Your task to perform on an android device: Show me popular games on the Play Store Image 0: 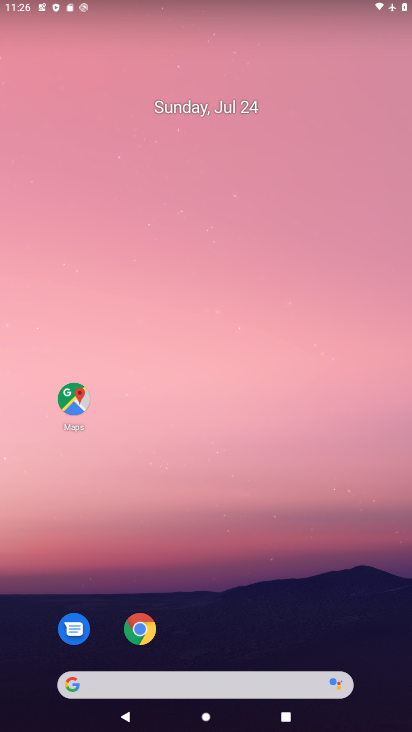
Step 0: drag from (203, 588) to (164, 5)
Your task to perform on an android device: Show me popular games on the Play Store Image 1: 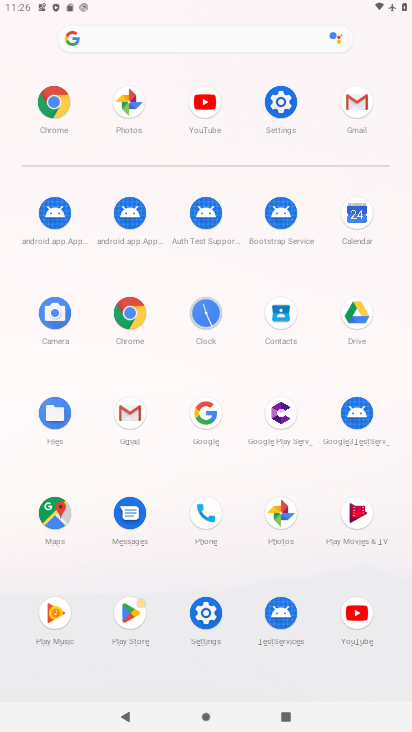
Step 1: click (141, 614)
Your task to perform on an android device: Show me popular games on the Play Store Image 2: 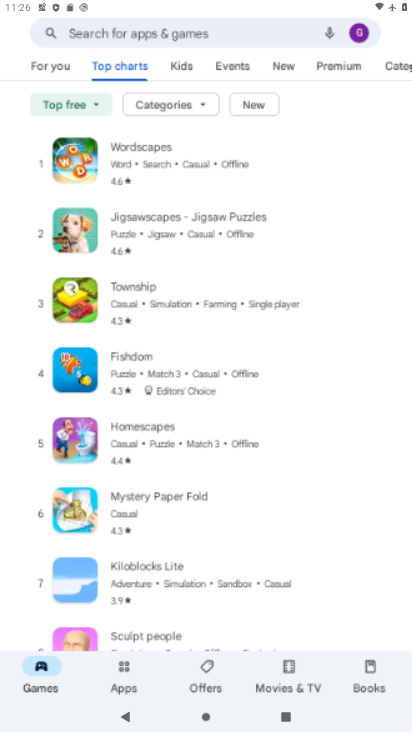
Step 2: task complete